Your task to perform on an android device: open app "DuckDuckGo Privacy Browser" Image 0: 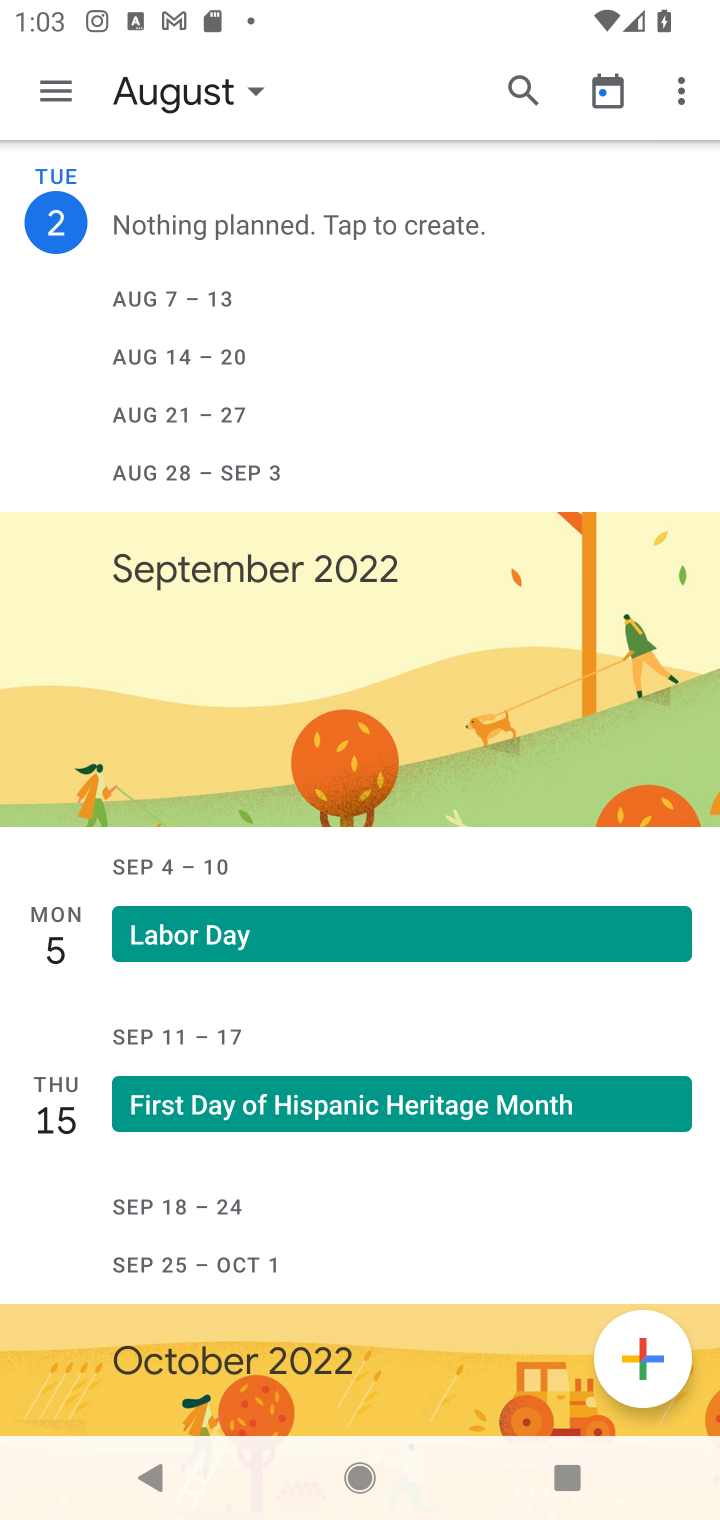
Step 0: press home button
Your task to perform on an android device: open app "DuckDuckGo Privacy Browser" Image 1: 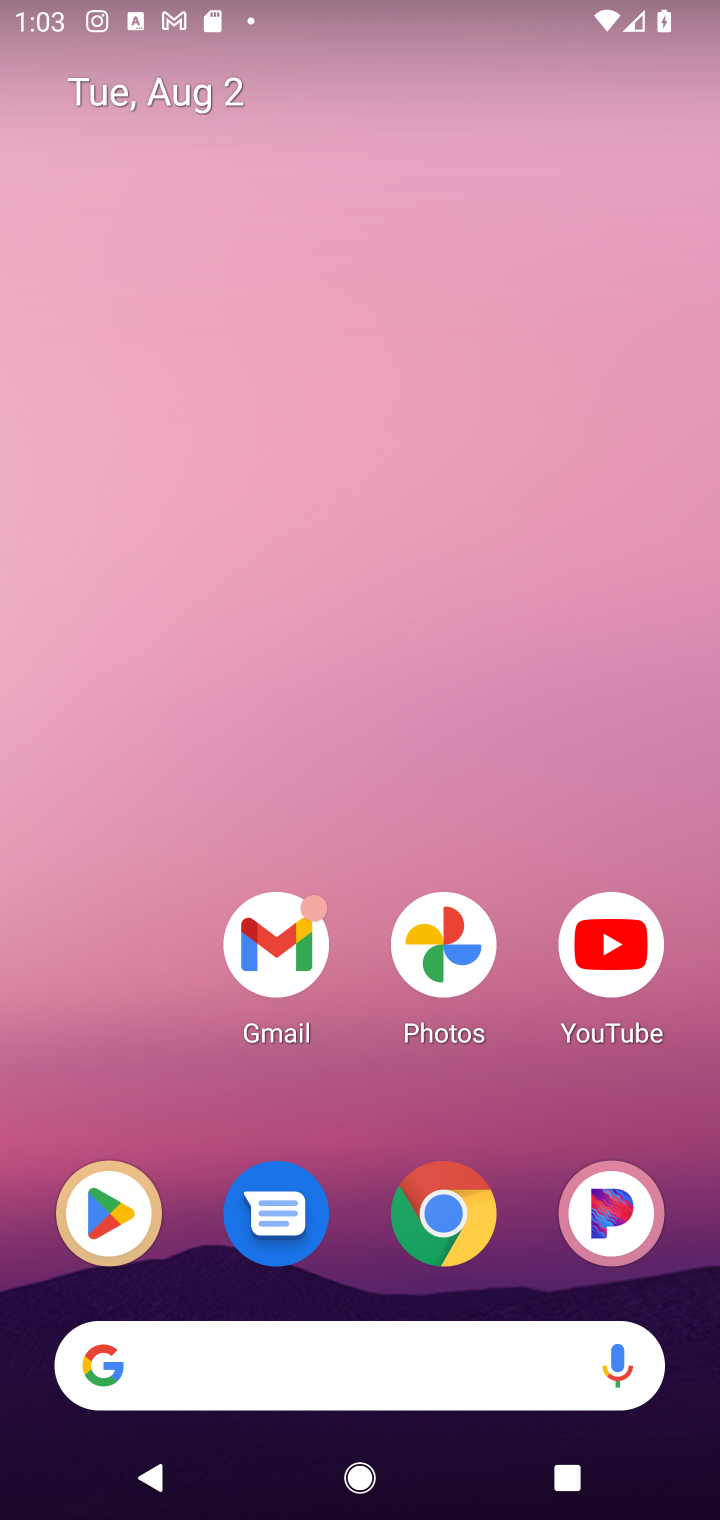
Step 1: click (94, 1229)
Your task to perform on an android device: open app "DuckDuckGo Privacy Browser" Image 2: 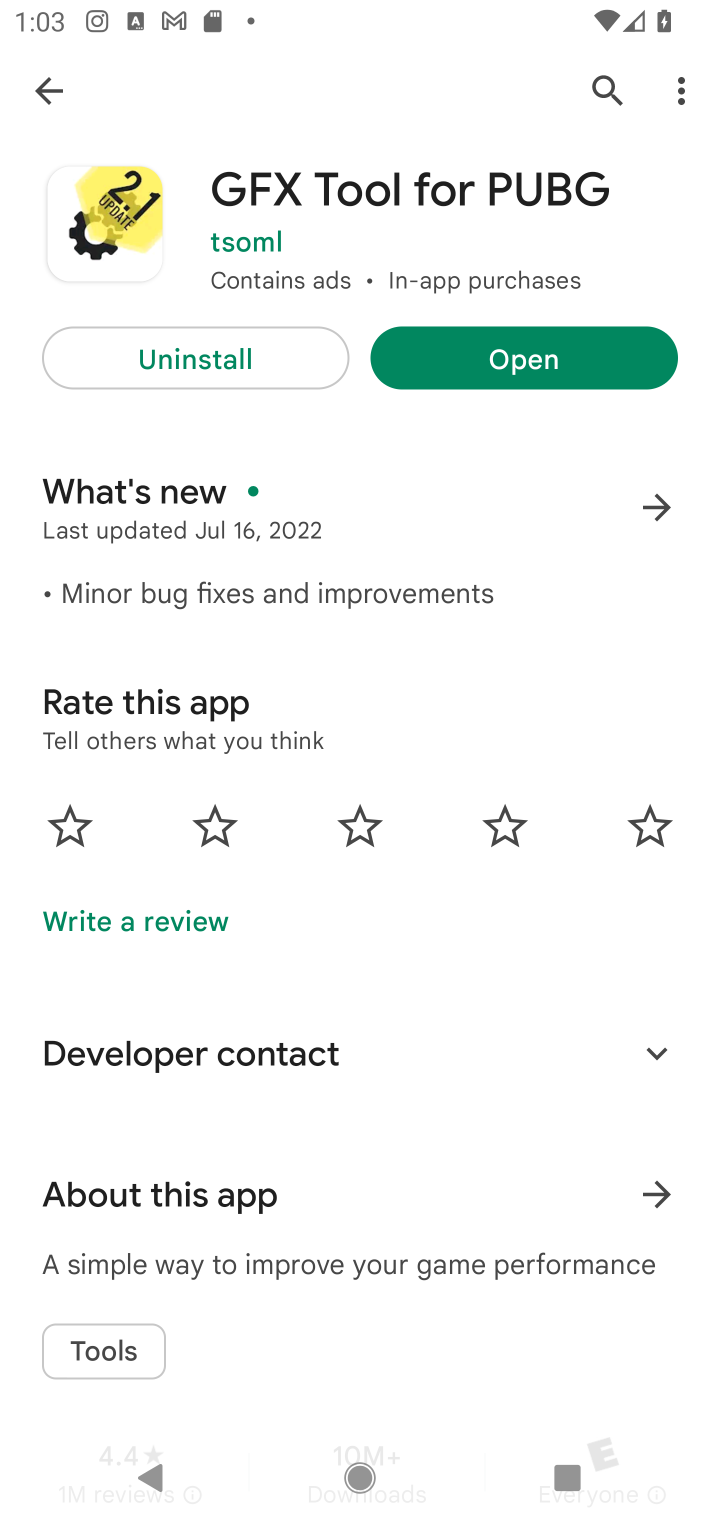
Step 2: click (56, 113)
Your task to perform on an android device: open app "DuckDuckGo Privacy Browser" Image 3: 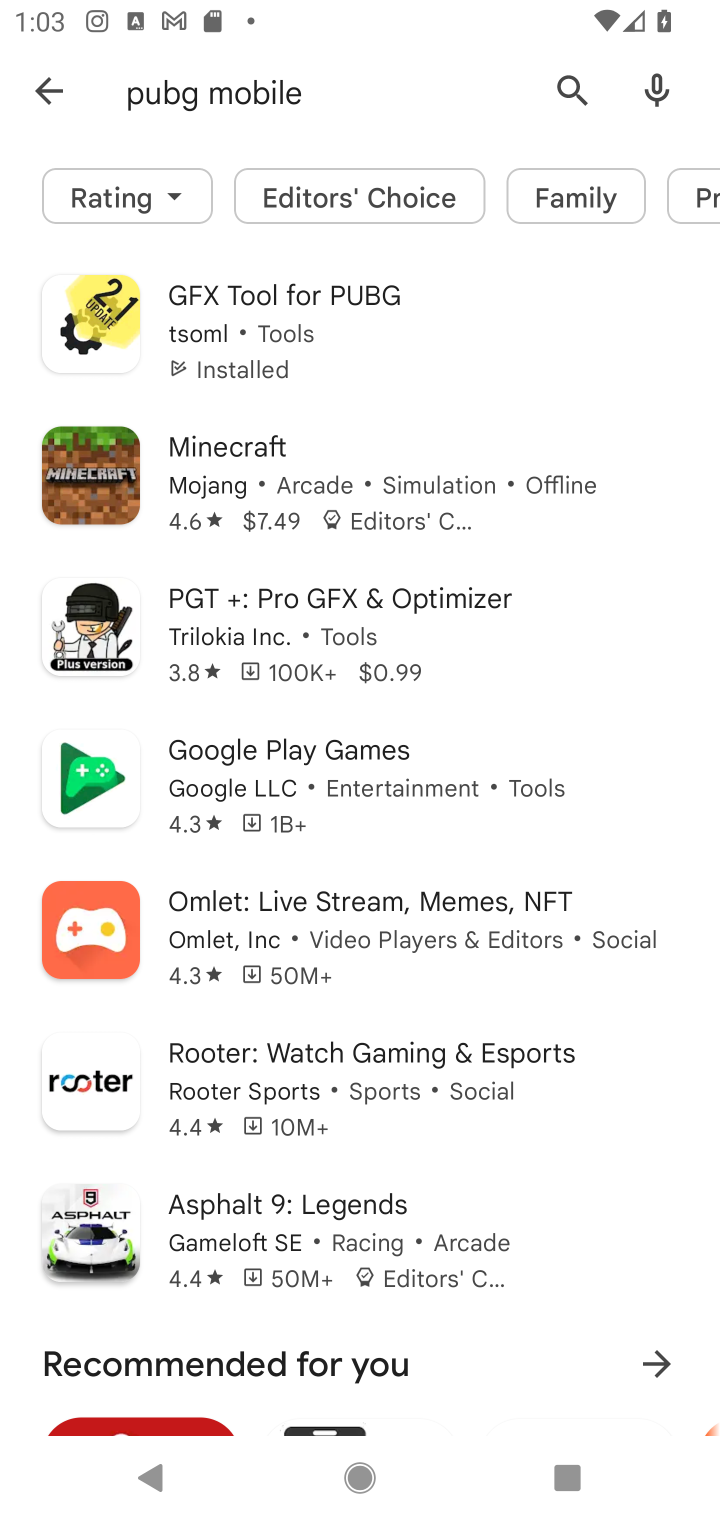
Step 3: click (40, 83)
Your task to perform on an android device: open app "DuckDuckGo Privacy Browser" Image 4: 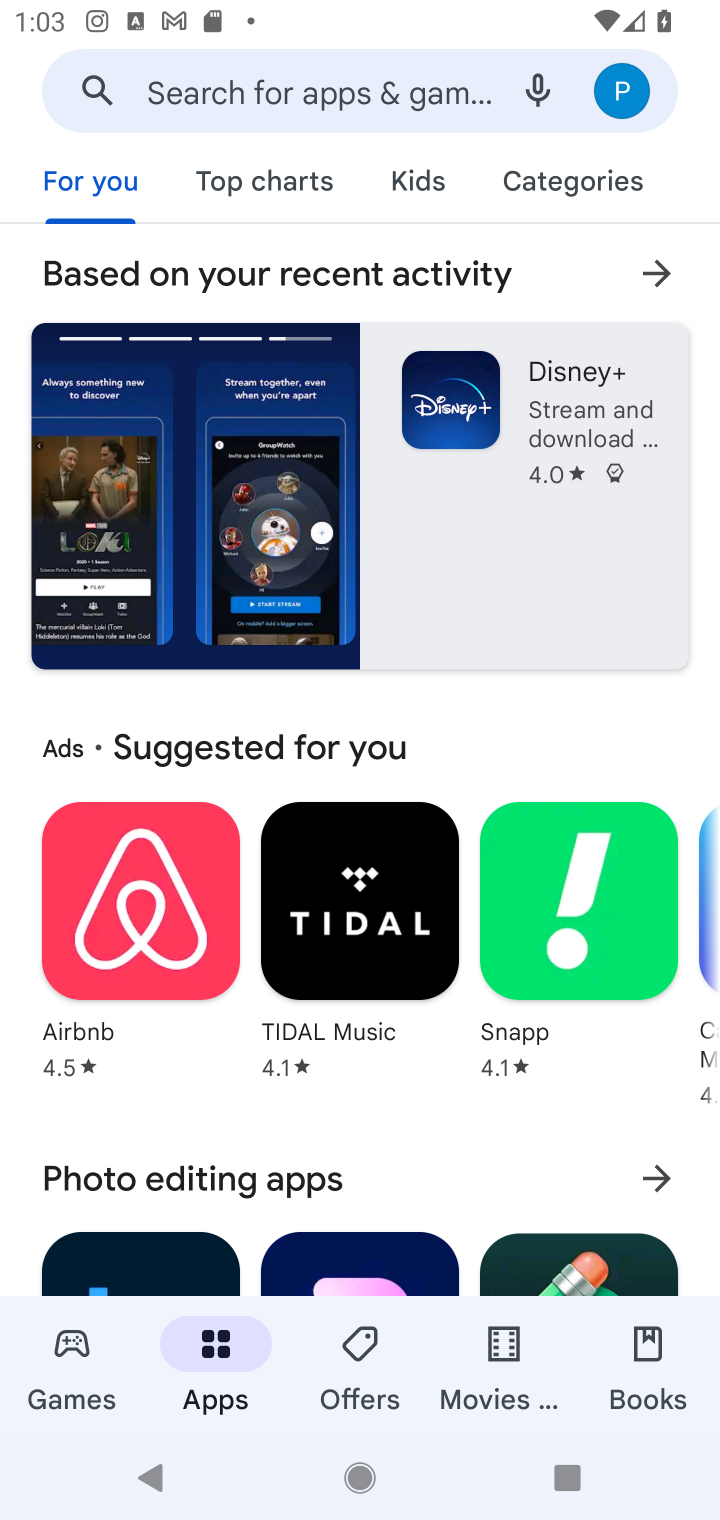
Step 4: click (292, 115)
Your task to perform on an android device: open app "DuckDuckGo Privacy Browser" Image 5: 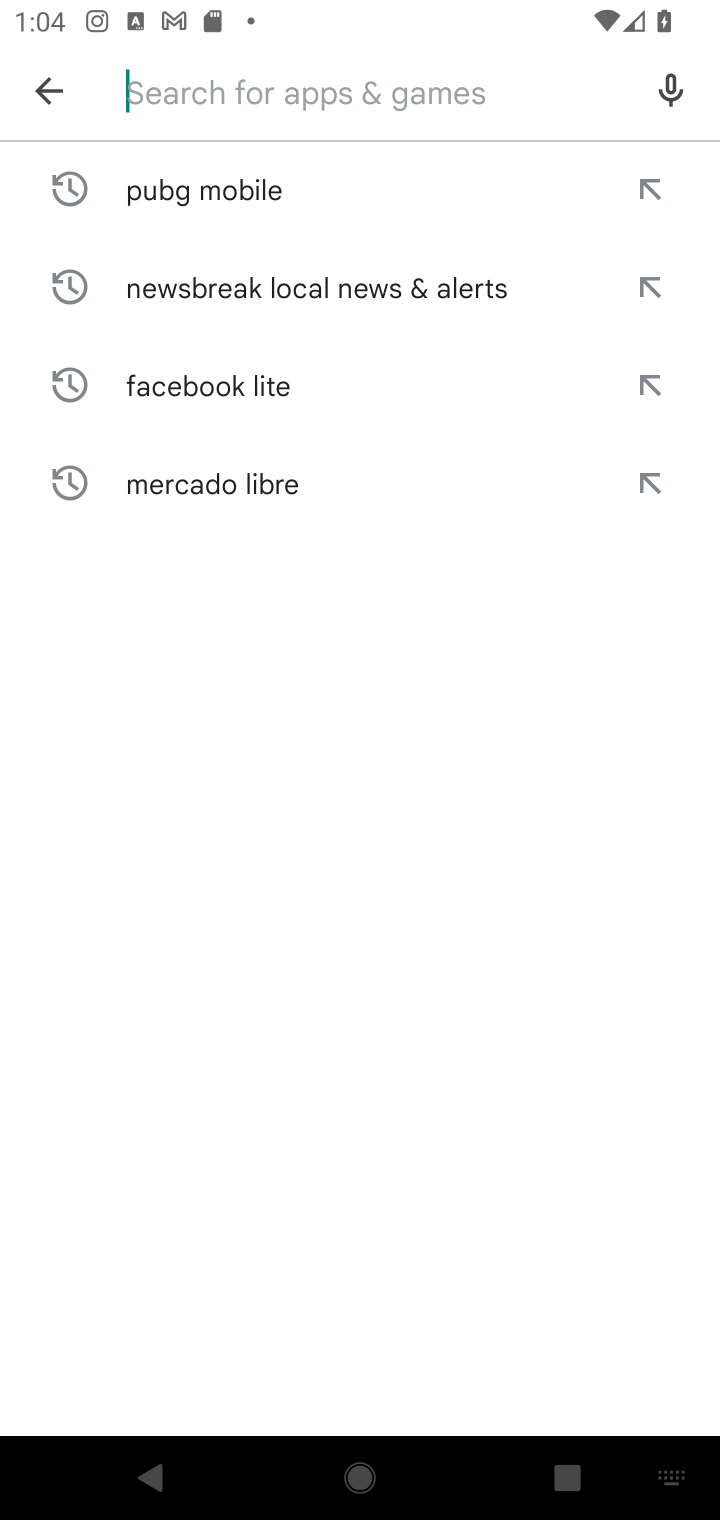
Step 5: type "DuckDuckGo Privacy Browser"
Your task to perform on an android device: open app "DuckDuckGo Privacy Browser" Image 6: 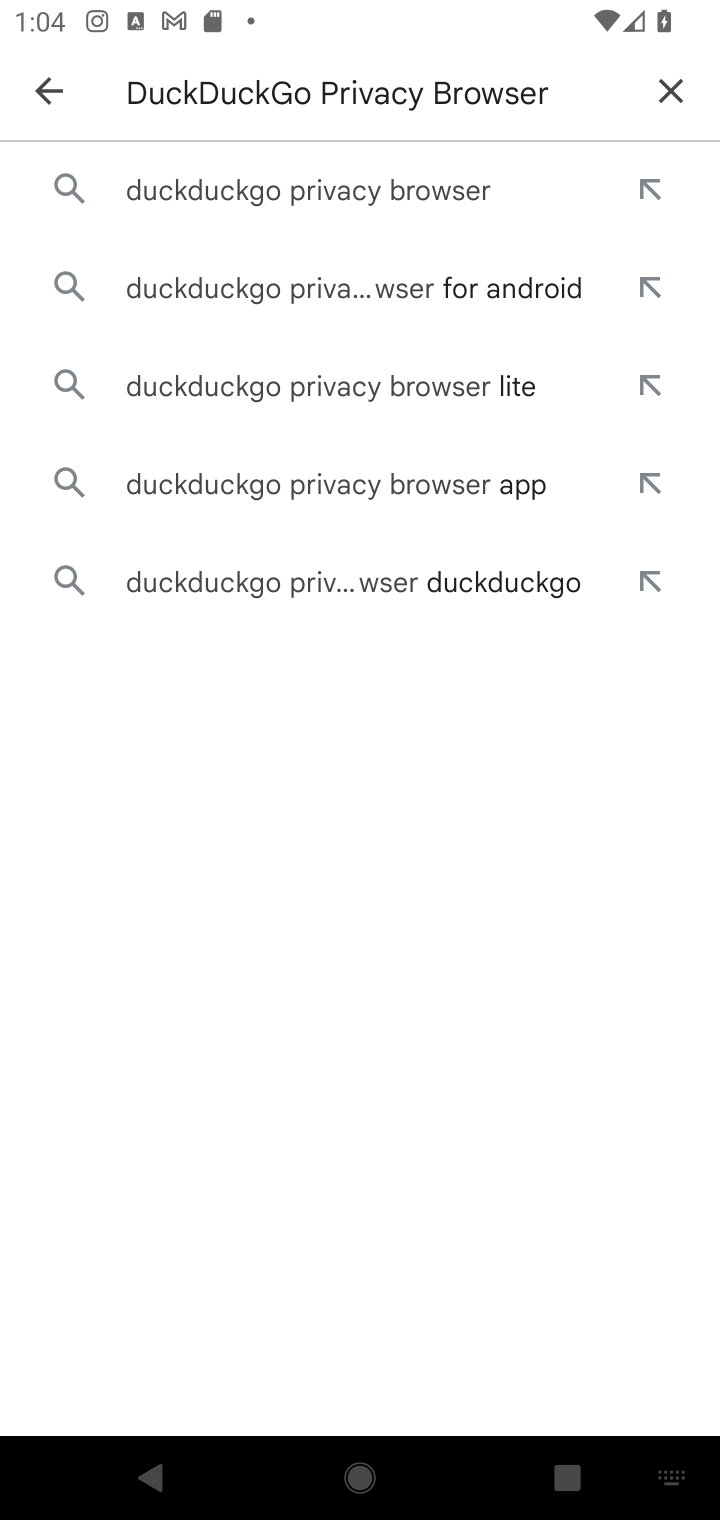
Step 6: click (265, 195)
Your task to perform on an android device: open app "DuckDuckGo Privacy Browser" Image 7: 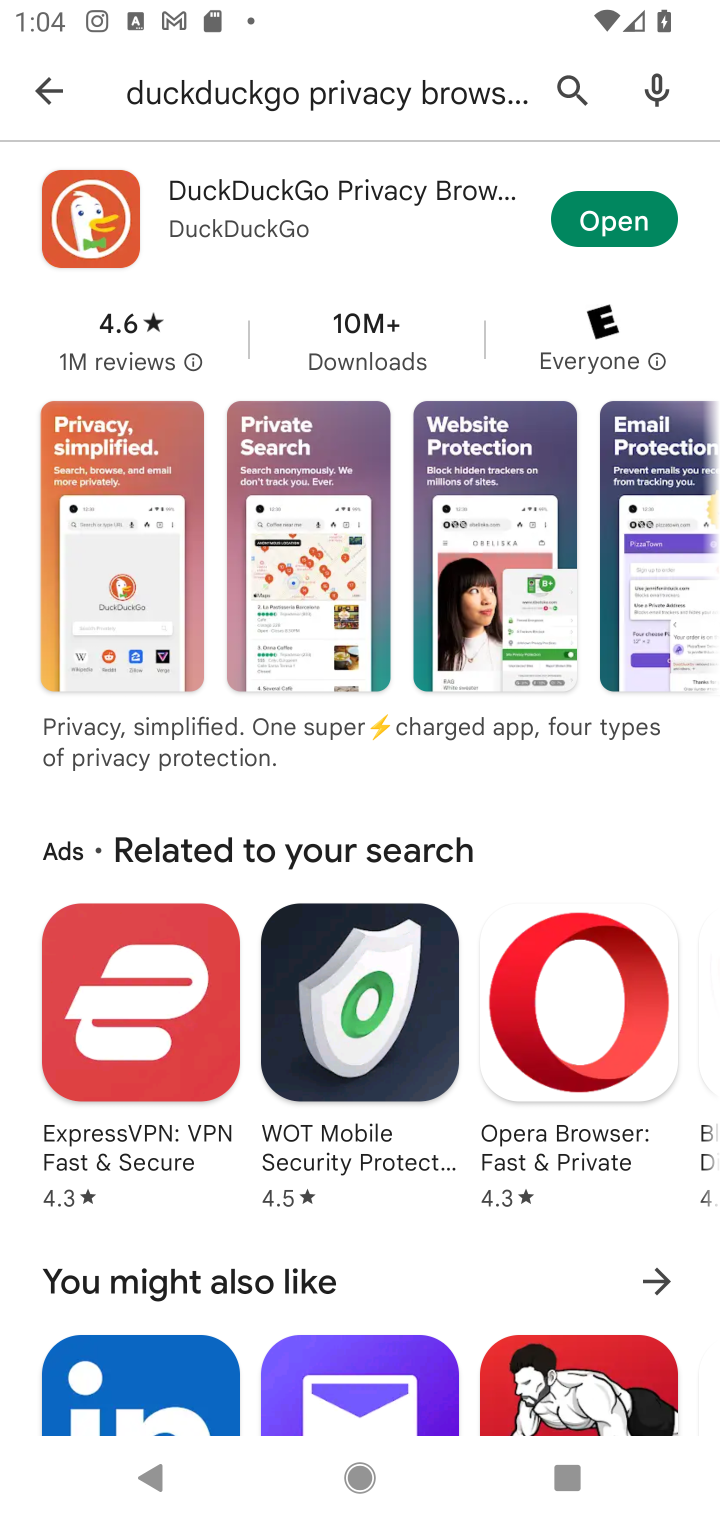
Step 7: click (566, 217)
Your task to perform on an android device: open app "DuckDuckGo Privacy Browser" Image 8: 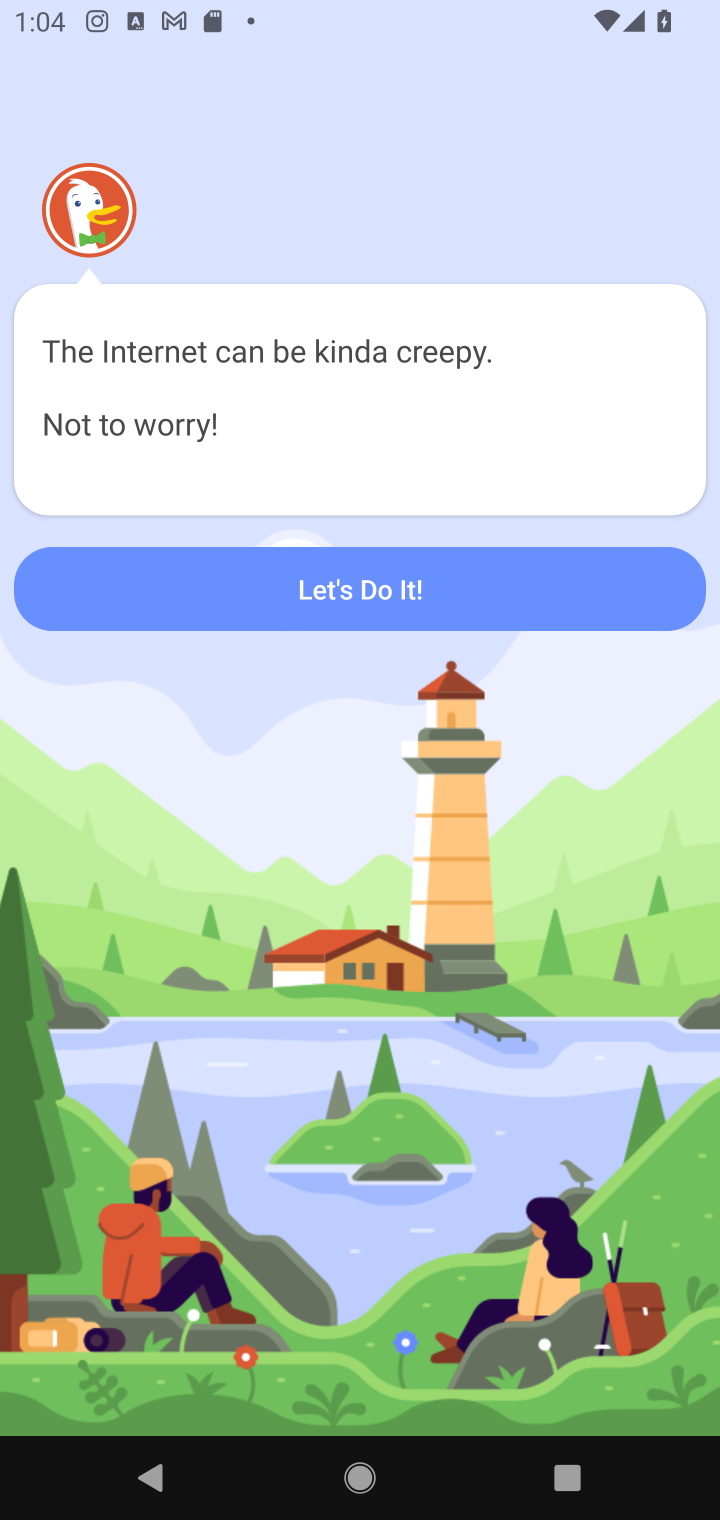
Step 8: task complete